Your task to perform on an android device: search for starred emails in the gmail app Image 0: 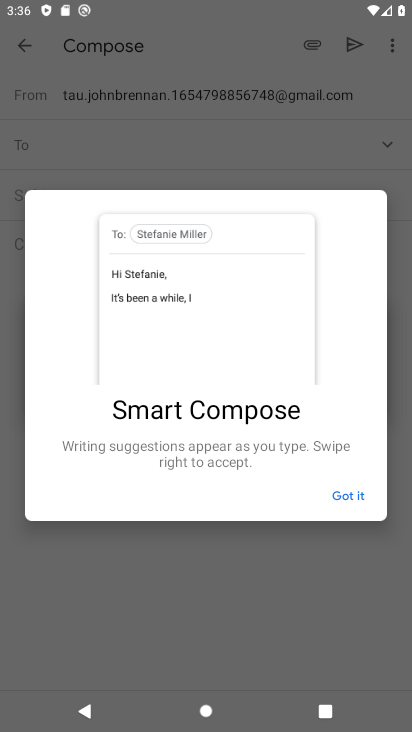
Step 0: press home button
Your task to perform on an android device: search for starred emails in the gmail app Image 1: 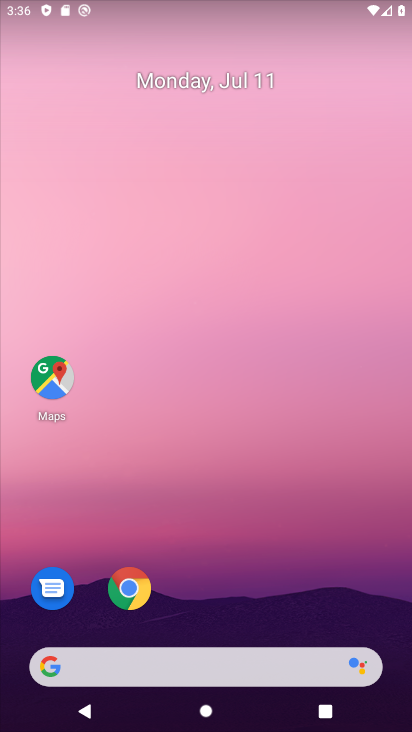
Step 1: drag from (230, 629) to (193, 125)
Your task to perform on an android device: search for starred emails in the gmail app Image 2: 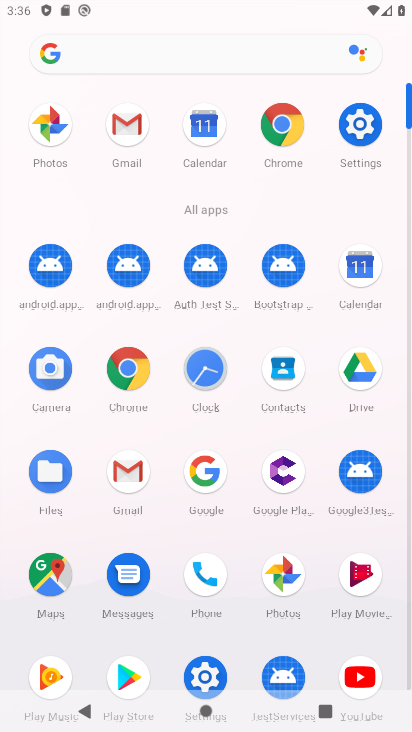
Step 2: click (126, 130)
Your task to perform on an android device: search for starred emails in the gmail app Image 3: 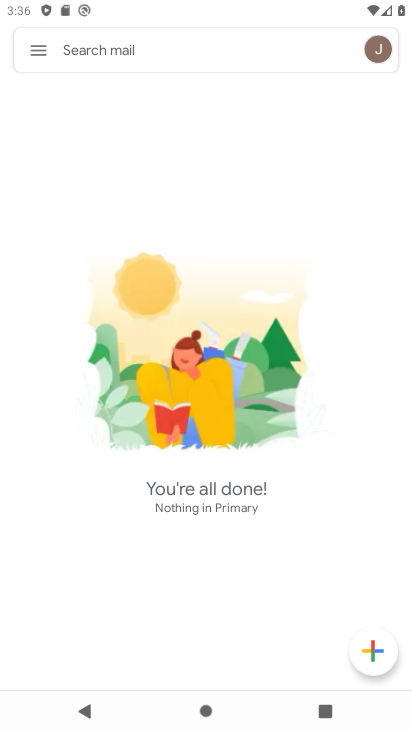
Step 3: click (38, 40)
Your task to perform on an android device: search for starred emails in the gmail app Image 4: 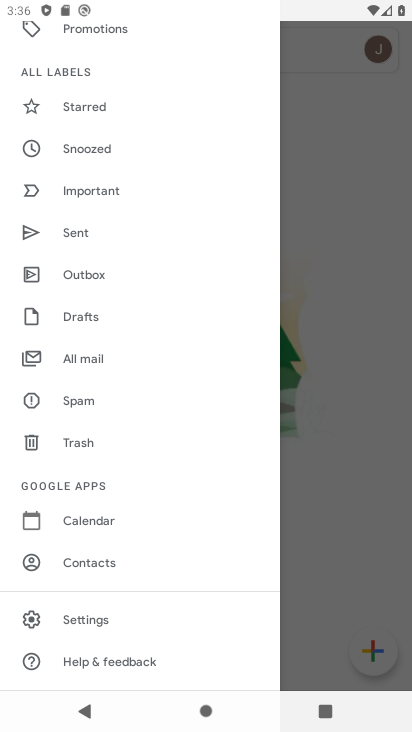
Step 4: click (83, 111)
Your task to perform on an android device: search for starred emails in the gmail app Image 5: 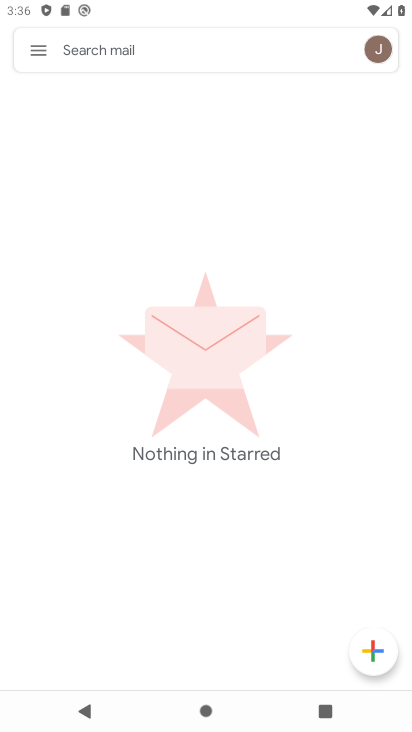
Step 5: task complete